Your task to perform on an android device: remove spam from my inbox in the gmail app Image 0: 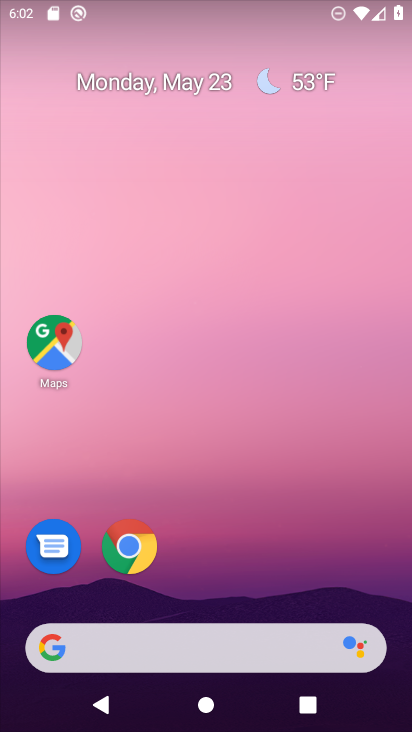
Step 0: drag from (259, 576) to (271, 316)
Your task to perform on an android device: remove spam from my inbox in the gmail app Image 1: 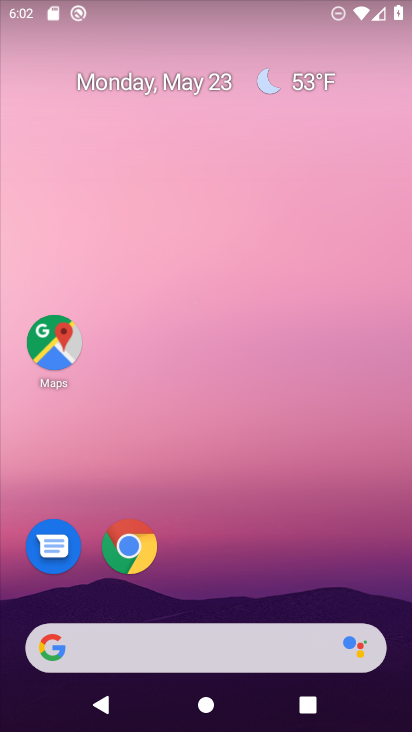
Step 1: drag from (278, 572) to (283, 246)
Your task to perform on an android device: remove spam from my inbox in the gmail app Image 2: 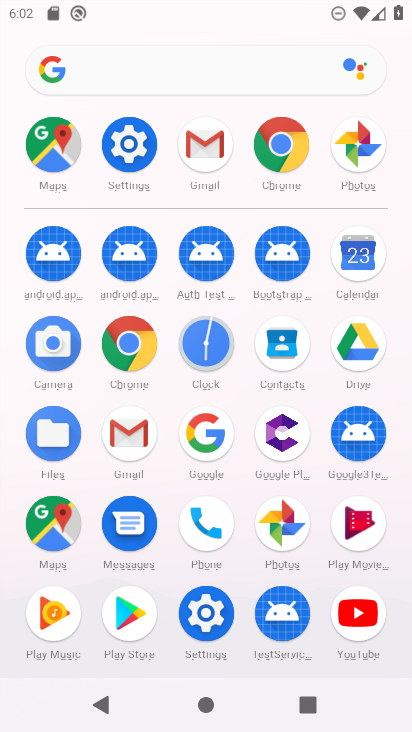
Step 2: click (130, 421)
Your task to perform on an android device: remove spam from my inbox in the gmail app Image 3: 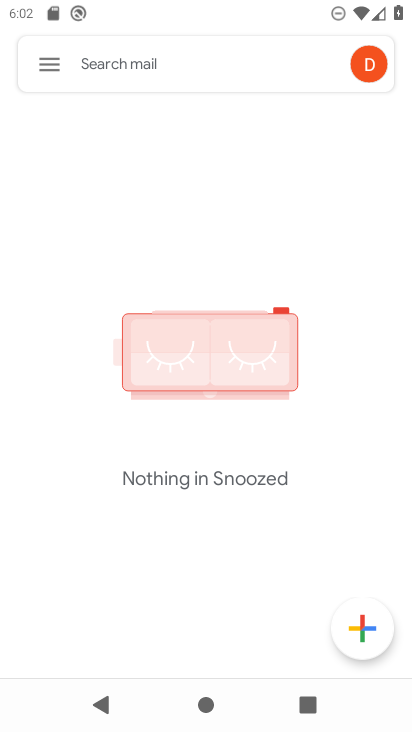
Step 3: click (43, 62)
Your task to perform on an android device: remove spam from my inbox in the gmail app Image 4: 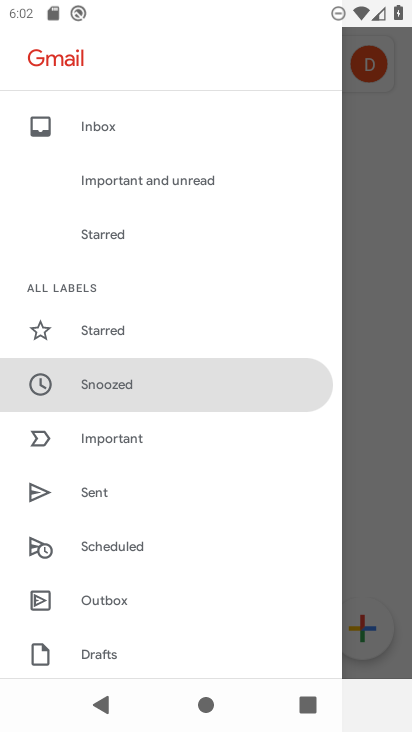
Step 4: drag from (169, 570) to (222, 195)
Your task to perform on an android device: remove spam from my inbox in the gmail app Image 5: 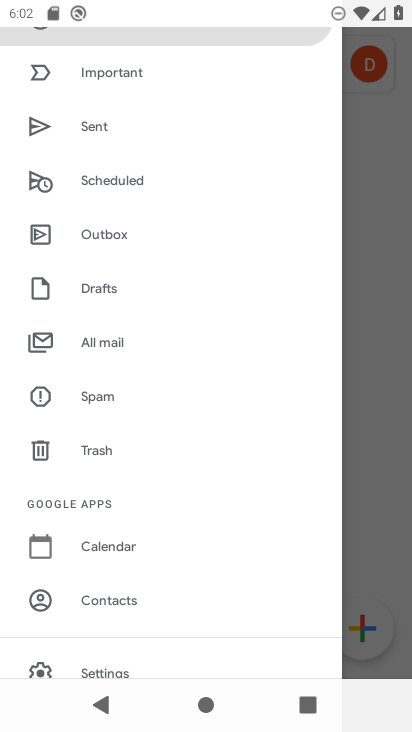
Step 5: click (118, 387)
Your task to perform on an android device: remove spam from my inbox in the gmail app Image 6: 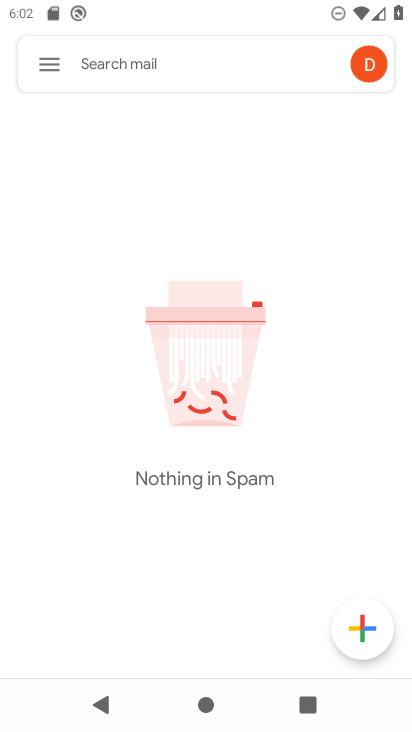
Step 6: task complete